Your task to perform on an android device: show emergency info Image 0: 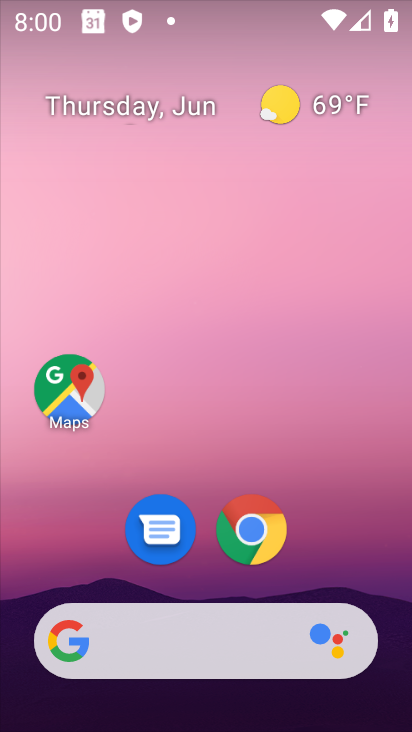
Step 0: drag from (227, 622) to (155, 82)
Your task to perform on an android device: show emergency info Image 1: 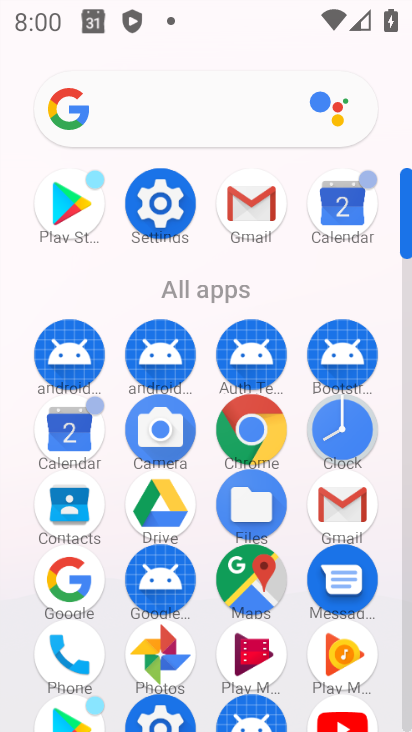
Step 1: click (160, 219)
Your task to perform on an android device: show emergency info Image 2: 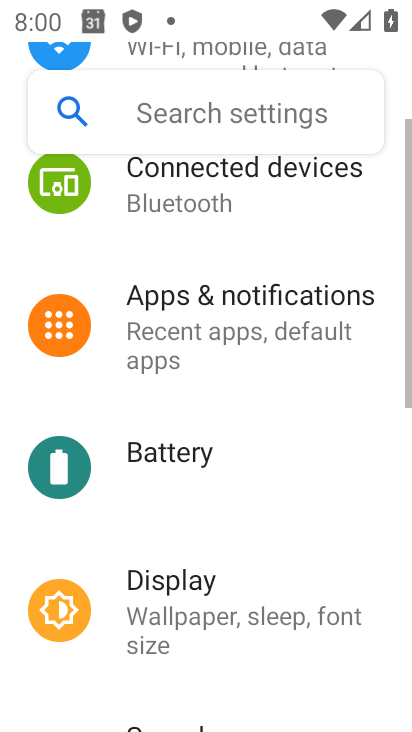
Step 2: drag from (193, 602) to (148, 79)
Your task to perform on an android device: show emergency info Image 3: 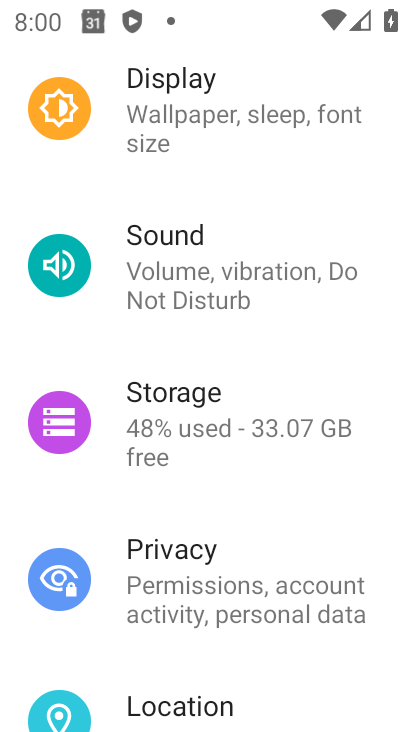
Step 3: drag from (165, 595) to (115, 42)
Your task to perform on an android device: show emergency info Image 4: 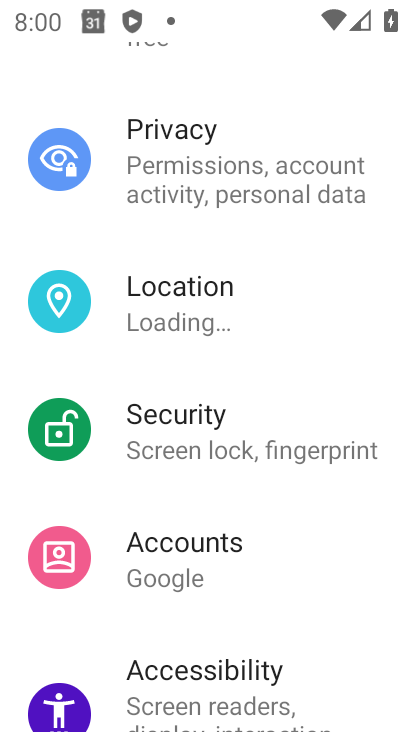
Step 4: drag from (167, 625) to (162, 59)
Your task to perform on an android device: show emergency info Image 5: 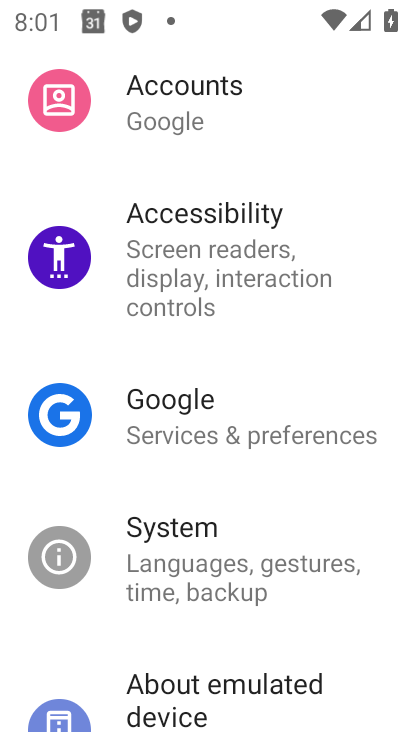
Step 5: click (222, 693)
Your task to perform on an android device: show emergency info Image 6: 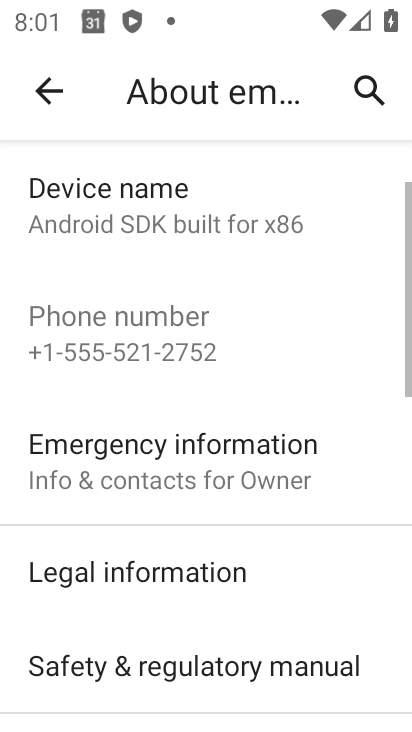
Step 6: click (171, 496)
Your task to perform on an android device: show emergency info Image 7: 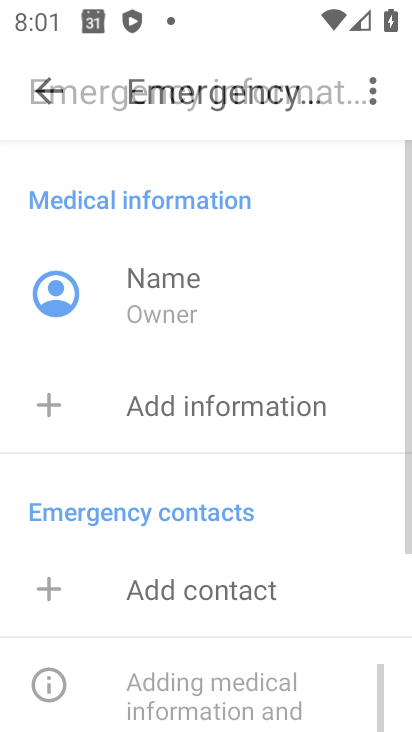
Step 7: task complete